Your task to perform on an android device: Set the phone to "Do not disturb". Image 0: 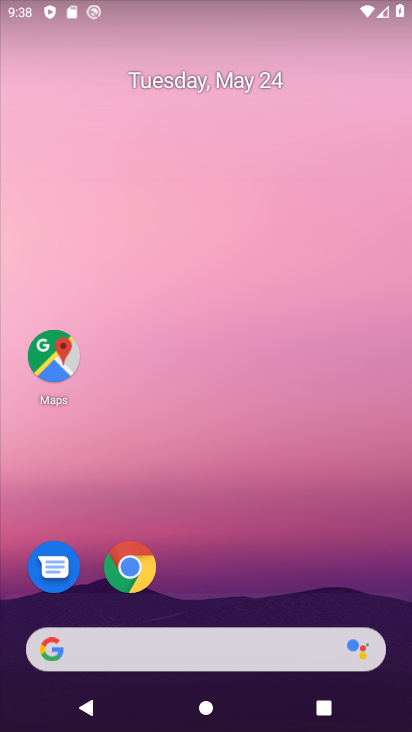
Step 0: drag from (179, 590) to (294, 64)
Your task to perform on an android device: Set the phone to "Do not disturb". Image 1: 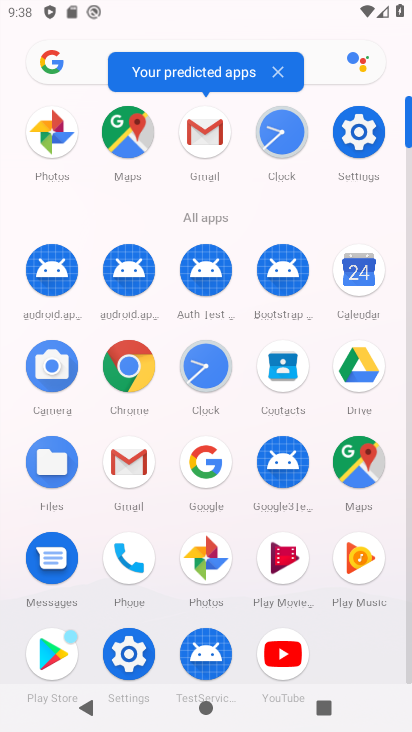
Step 1: click (126, 657)
Your task to perform on an android device: Set the phone to "Do not disturb". Image 2: 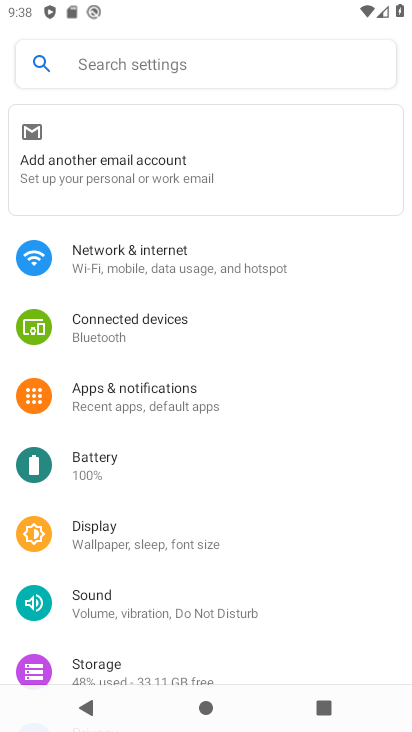
Step 2: click (169, 380)
Your task to perform on an android device: Set the phone to "Do not disturb". Image 3: 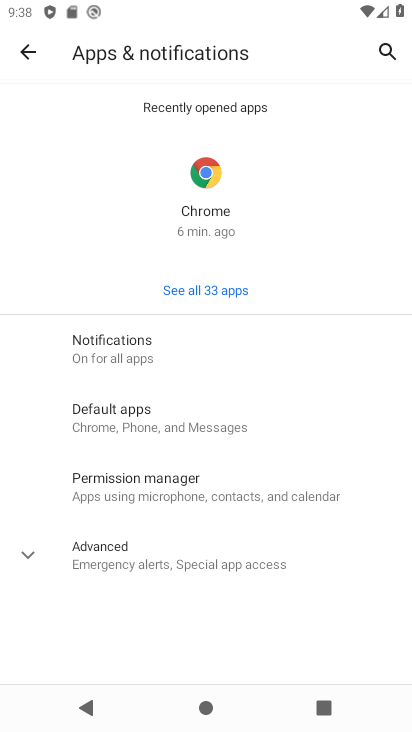
Step 3: click (199, 366)
Your task to perform on an android device: Set the phone to "Do not disturb". Image 4: 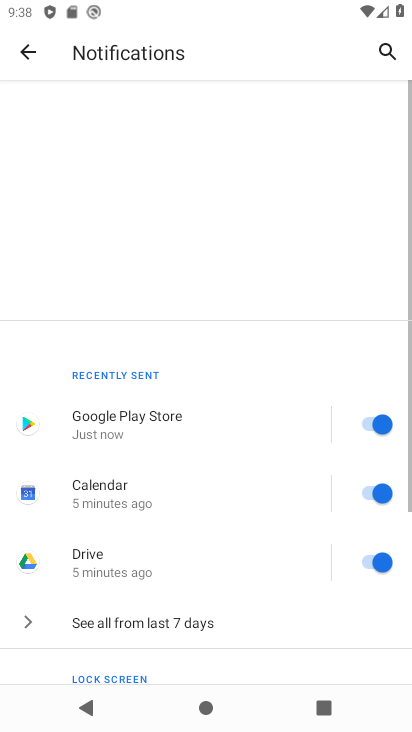
Step 4: drag from (202, 651) to (312, 30)
Your task to perform on an android device: Set the phone to "Do not disturb". Image 5: 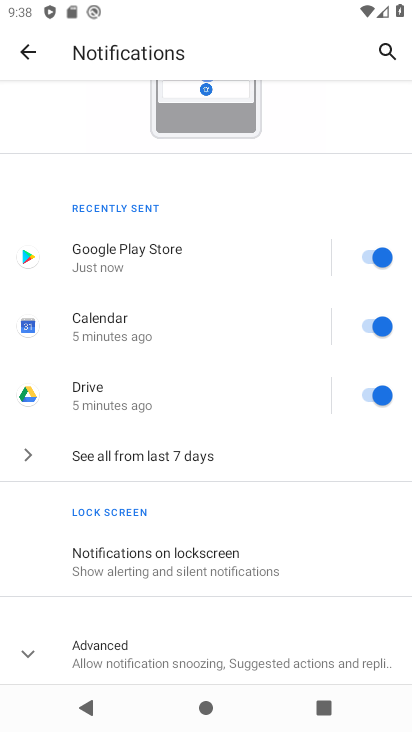
Step 5: click (166, 635)
Your task to perform on an android device: Set the phone to "Do not disturb". Image 6: 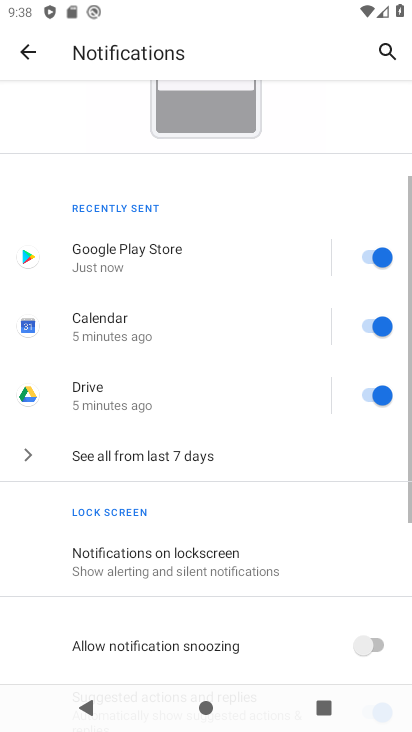
Step 6: drag from (171, 626) to (302, 52)
Your task to perform on an android device: Set the phone to "Do not disturb". Image 7: 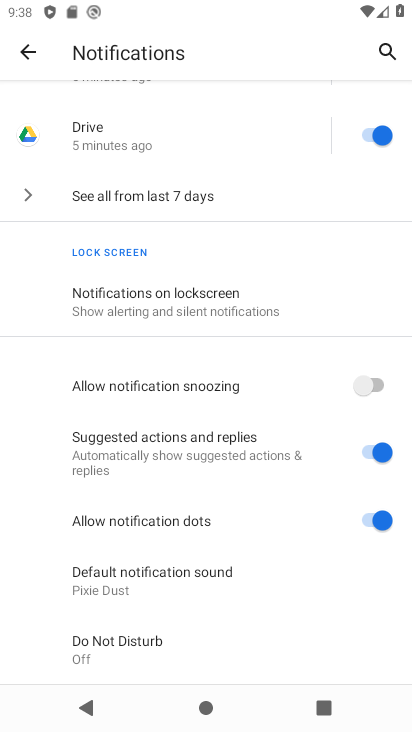
Step 7: click (184, 659)
Your task to perform on an android device: Set the phone to "Do not disturb". Image 8: 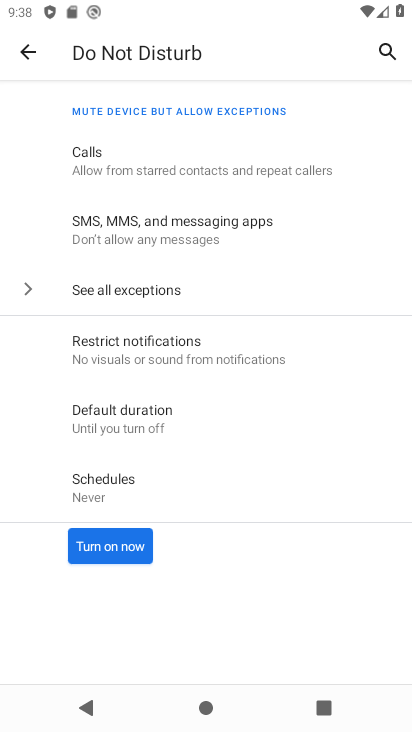
Step 8: click (105, 525)
Your task to perform on an android device: Set the phone to "Do not disturb". Image 9: 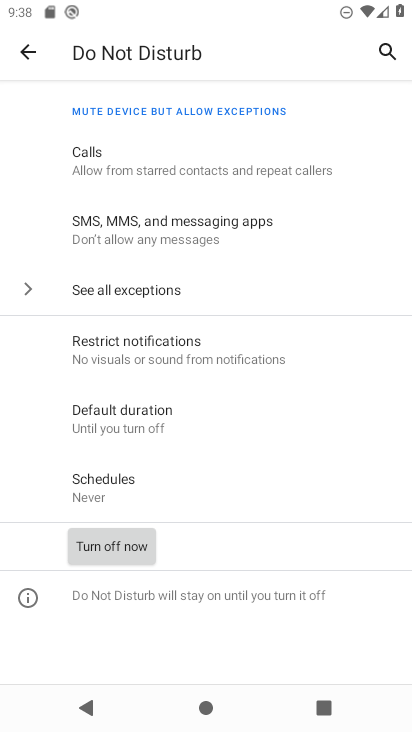
Step 9: task complete